Your task to perform on an android device: Open internet settings Image 0: 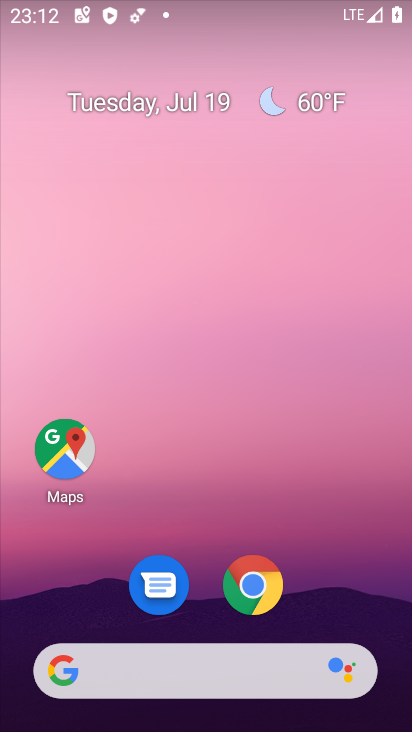
Step 0: drag from (329, 604) to (364, 6)
Your task to perform on an android device: Open internet settings Image 1: 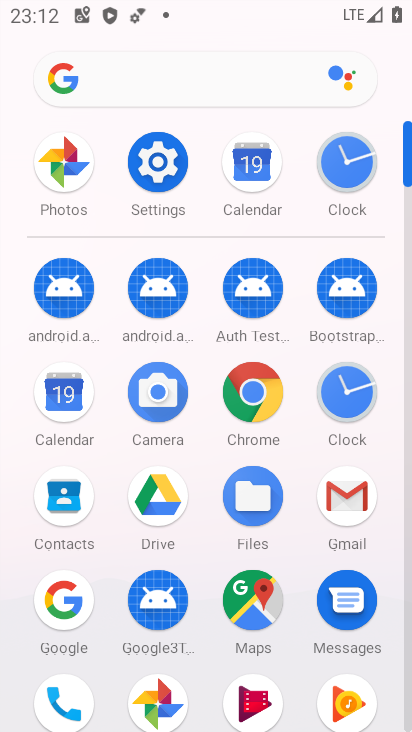
Step 1: click (155, 154)
Your task to perform on an android device: Open internet settings Image 2: 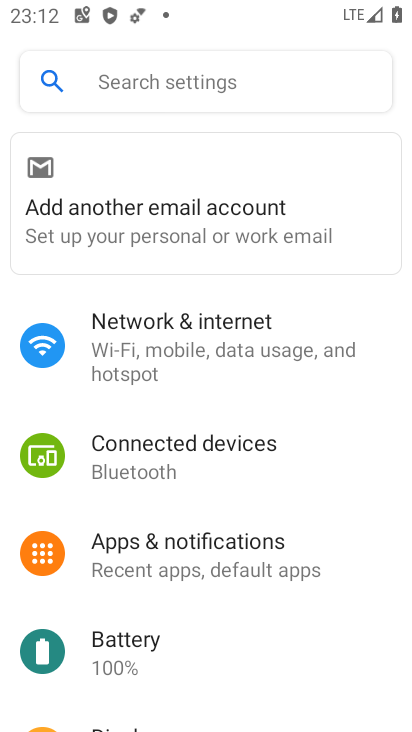
Step 2: click (196, 338)
Your task to perform on an android device: Open internet settings Image 3: 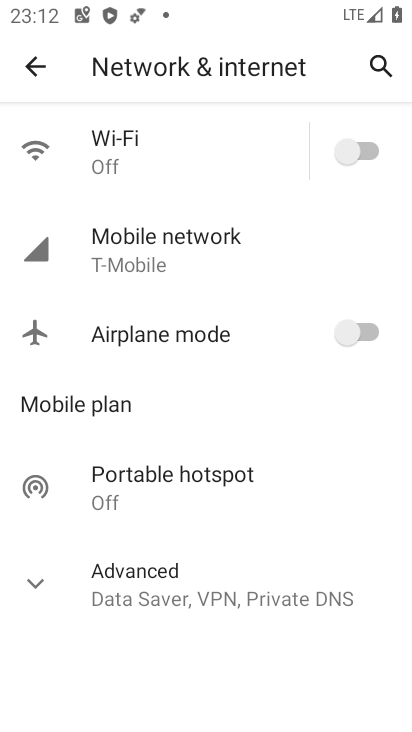
Step 3: task complete